Your task to perform on an android device: change the clock style Image 0: 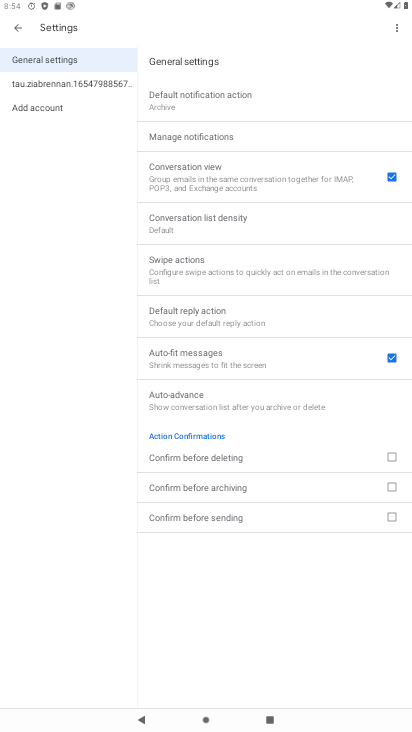
Step 0: press home button
Your task to perform on an android device: change the clock style Image 1: 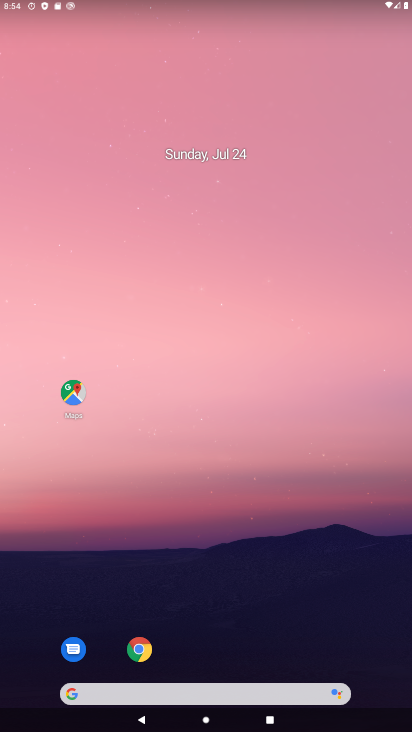
Step 1: click (224, 64)
Your task to perform on an android device: change the clock style Image 2: 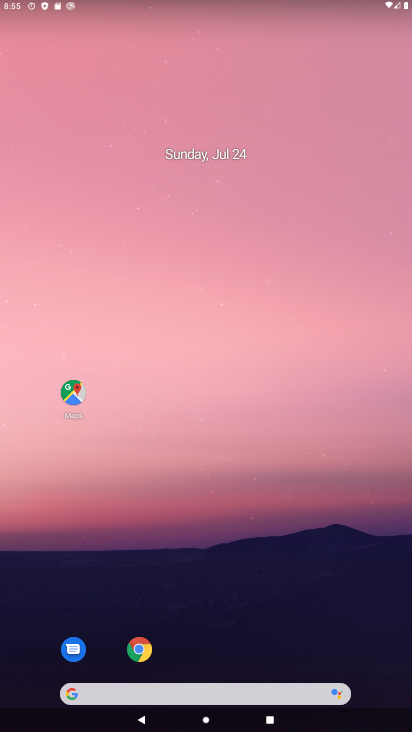
Step 2: drag from (26, 688) to (246, 69)
Your task to perform on an android device: change the clock style Image 3: 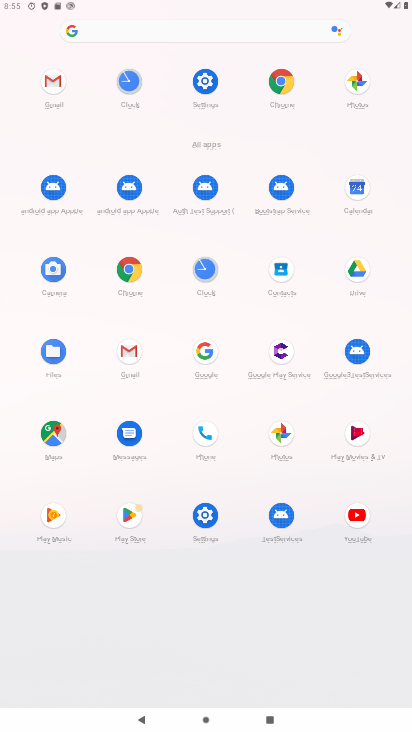
Step 3: click (204, 277)
Your task to perform on an android device: change the clock style Image 4: 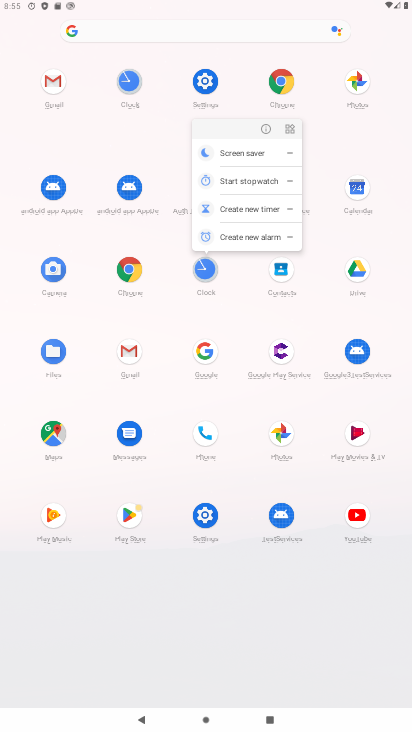
Step 4: click (202, 276)
Your task to perform on an android device: change the clock style Image 5: 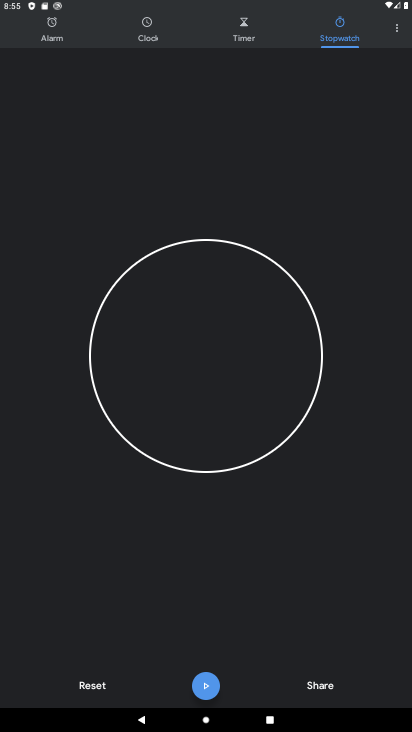
Step 5: click (150, 25)
Your task to perform on an android device: change the clock style Image 6: 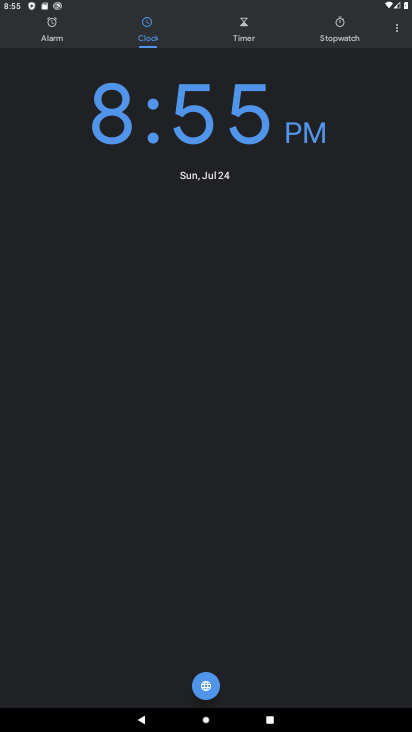
Step 6: click (398, 32)
Your task to perform on an android device: change the clock style Image 7: 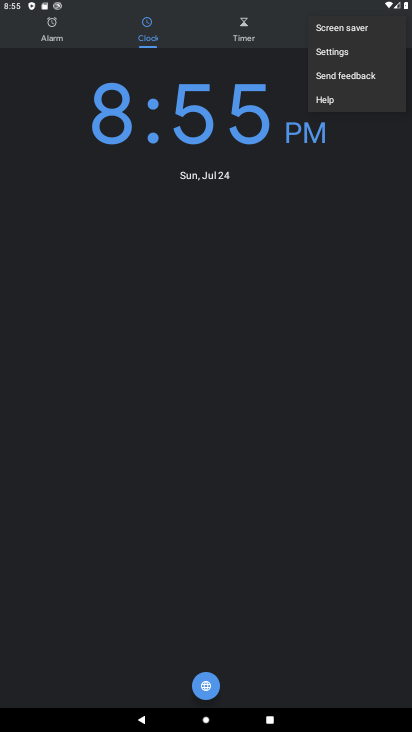
Step 7: click (347, 56)
Your task to perform on an android device: change the clock style Image 8: 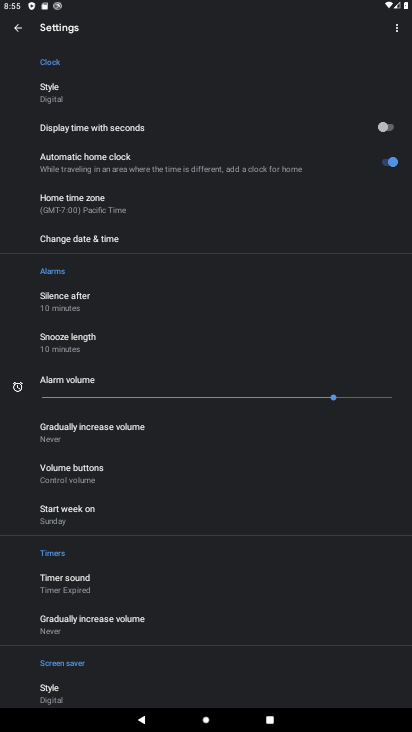
Step 8: click (66, 91)
Your task to perform on an android device: change the clock style Image 9: 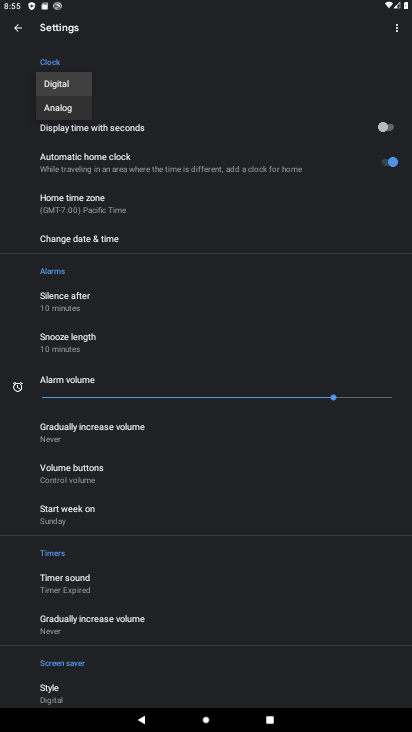
Step 9: click (59, 109)
Your task to perform on an android device: change the clock style Image 10: 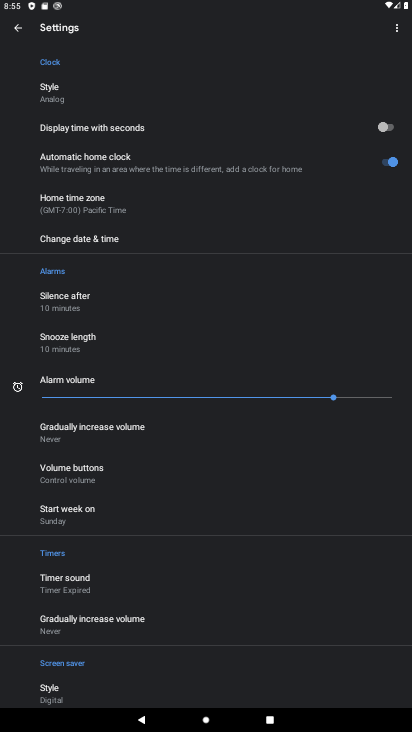
Step 10: task complete